Your task to perform on an android device: allow cookies in the chrome app Image 0: 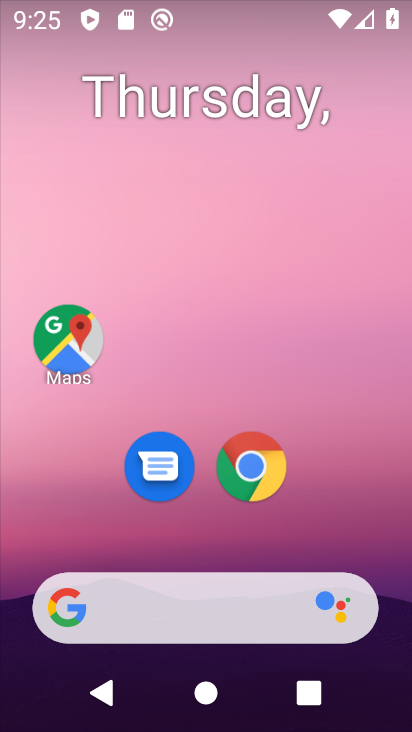
Step 0: drag from (370, 451) to (378, 147)
Your task to perform on an android device: allow cookies in the chrome app Image 1: 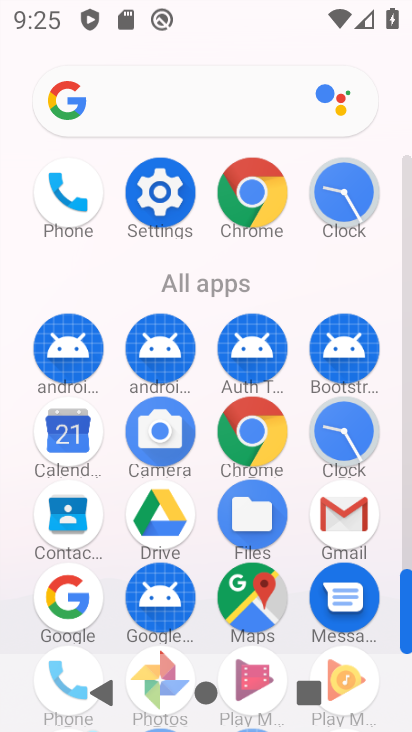
Step 1: click (254, 445)
Your task to perform on an android device: allow cookies in the chrome app Image 2: 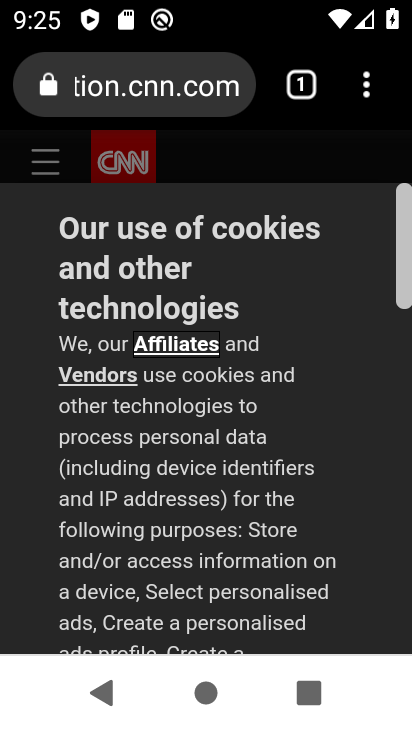
Step 2: drag from (369, 100) to (149, 513)
Your task to perform on an android device: allow cookies in the chrome app Image 3: 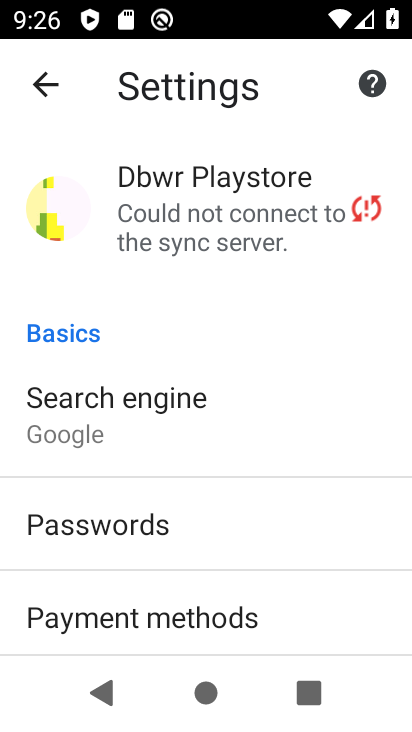
Step 3: drag from (217, 544) to (283, 325)
Your task to perform on an android device: allow cookies in the chrome app Image 4: 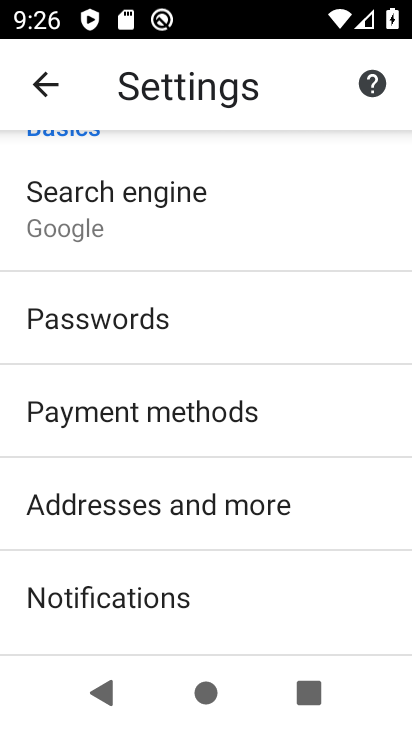
Step 4: drag from (260, 554) to (287, 305)
Your task to perform on an android device: allow cookies in the chrome app Image 5: 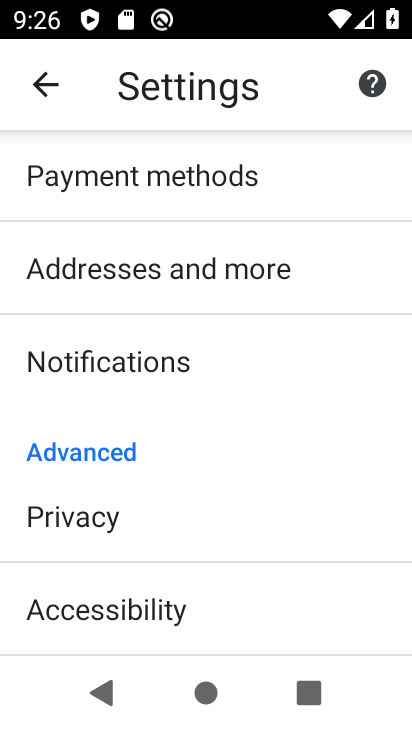
Step 5: drag from (229, 546) to (266, 246)
Your task to perform on an android device: allow cookies in the chrome app Image 6: 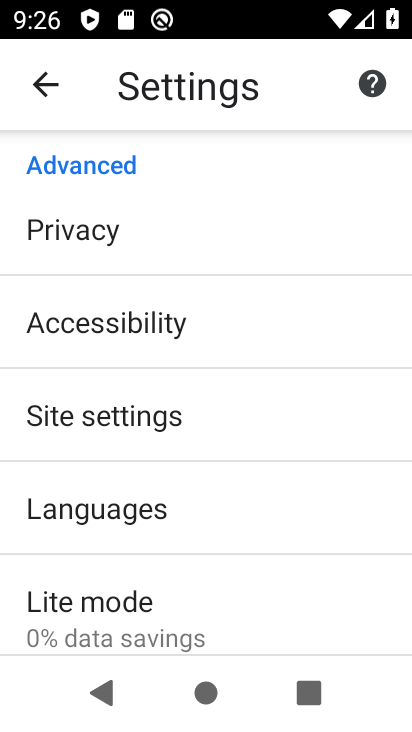
Step 6: click (189, 420)
Your task to perform on an android device: allow cookies in the chrome app Image 7: 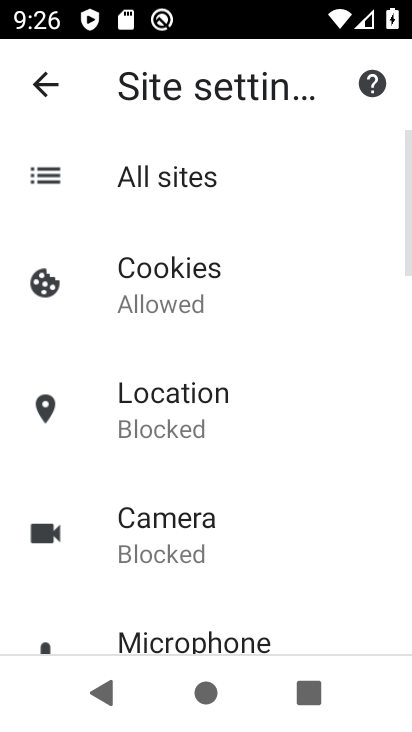
Step 7: click (218, 287)
Your task to perform on an android device: allow cookies in the chrome app Image 8: 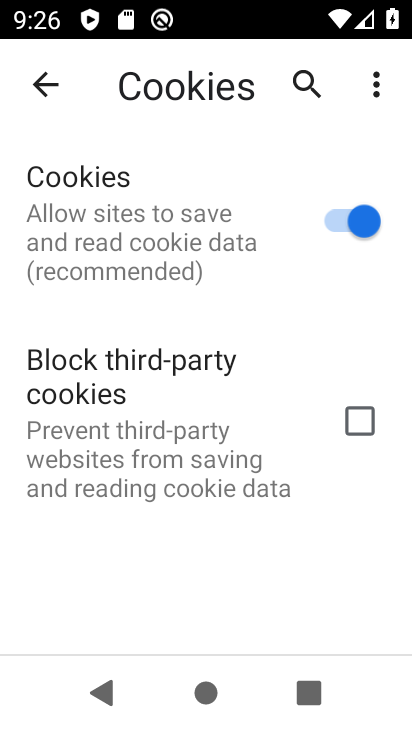
Step 8: task complete